Your task to perform on an android device: Open display settings Image 0: 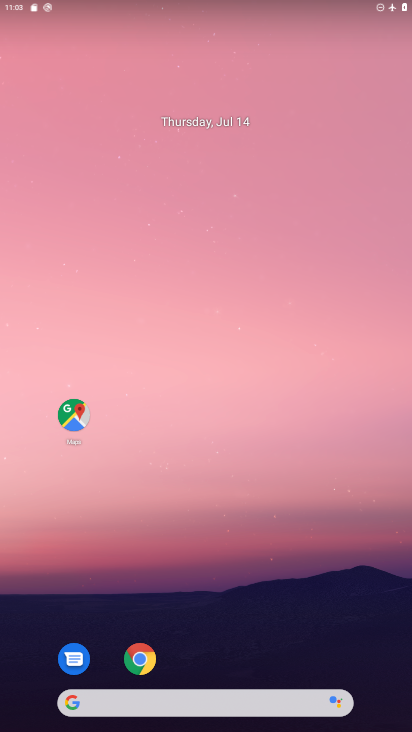
Step 0: drag from (278, 609) to (242, 208)
Your task to perform on an android device: Open display settings Image 1: 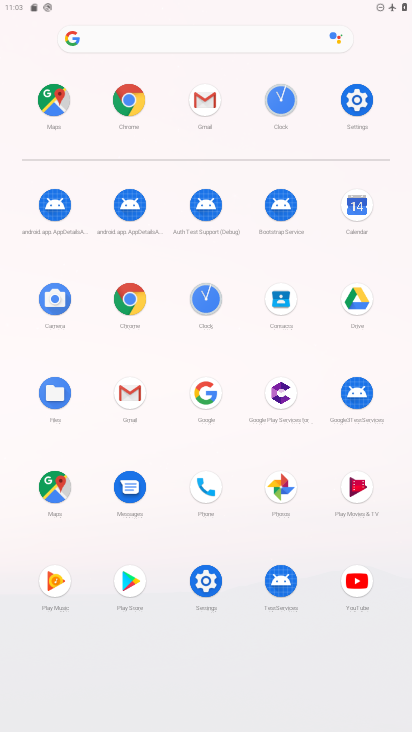
Step 1: click (354, 102)
Your task to perform on an android device: Open display settings Image 2: 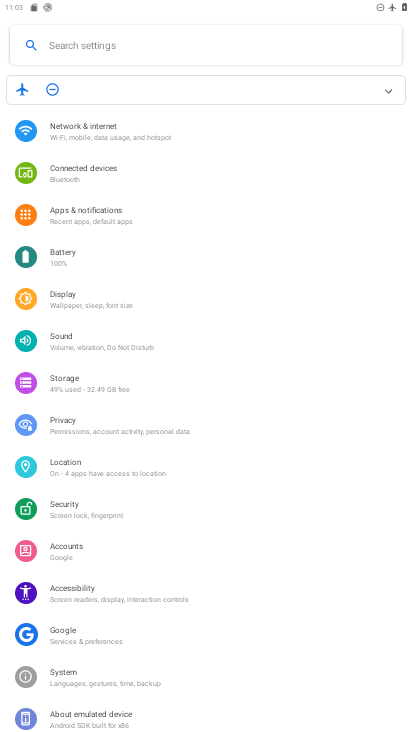
Step 2: click (111, 304)
Your task to perform on an android device: Open display settings Image 3: 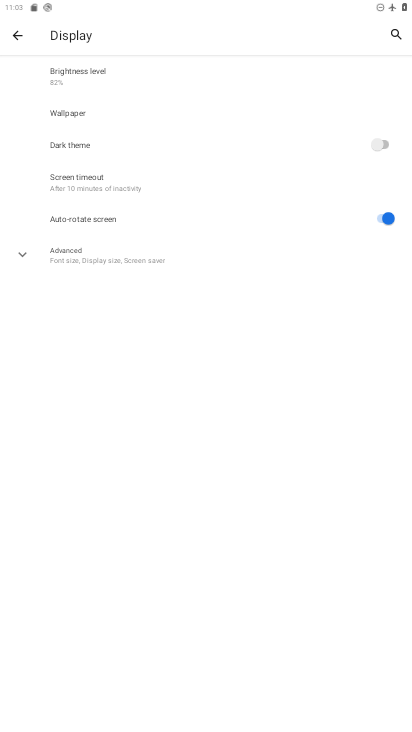
Step 3: task complete